Your task to perform on an android device: Check the news Image 0: 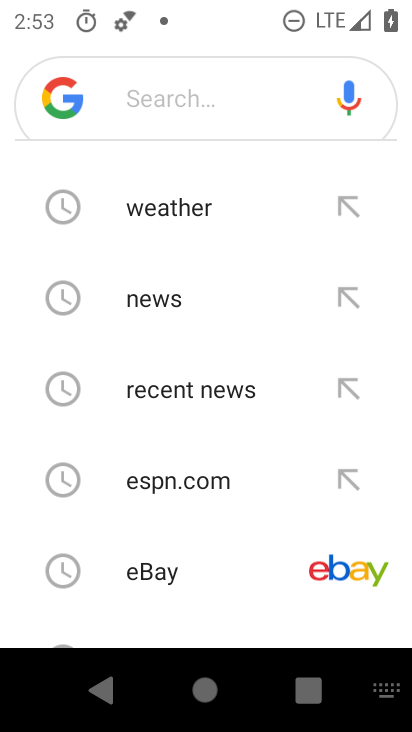
Step 0: click (177, 304)
Your task to perform on an android device: Check the news Image 1: 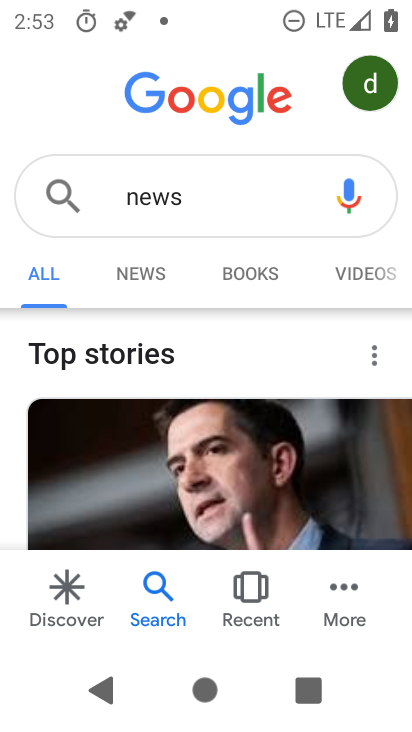
Step 1: task complete